Your task to perform on an android device: Open eBay Image 0: 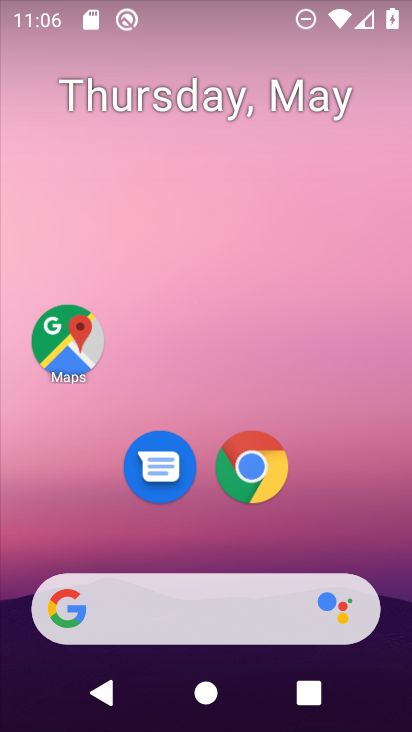
Step 0: drag from (247, 551) to (221, 202)
Your task to perform on an android device: Open eBay Image 1: 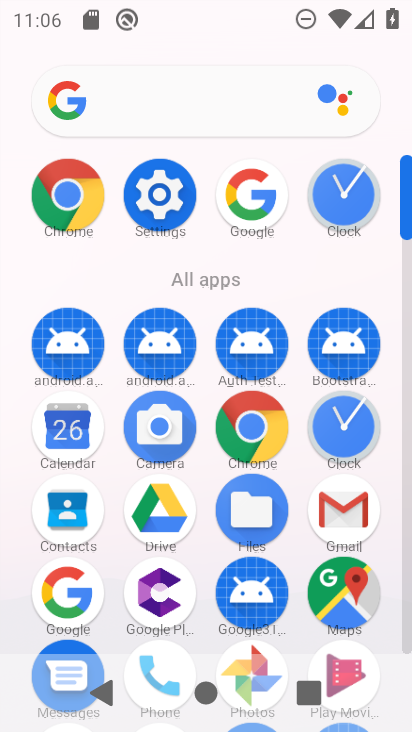
Step 1: click (250, 439)
Your task to perform on an android device: Open eBay Image 2: 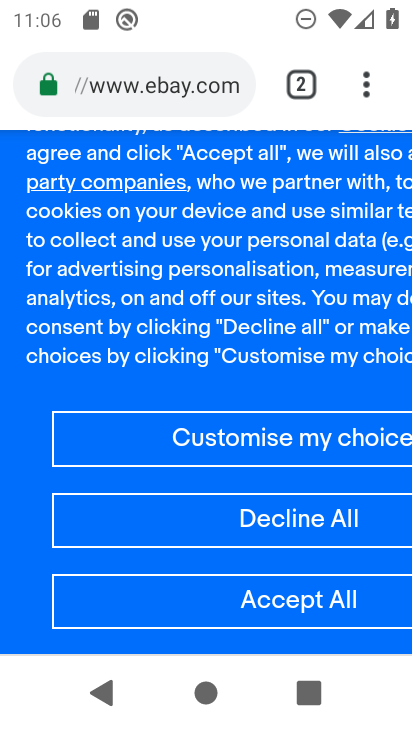
Step 2: task complete